Your task to perform on an android device: Go to CNN.com Image 0: 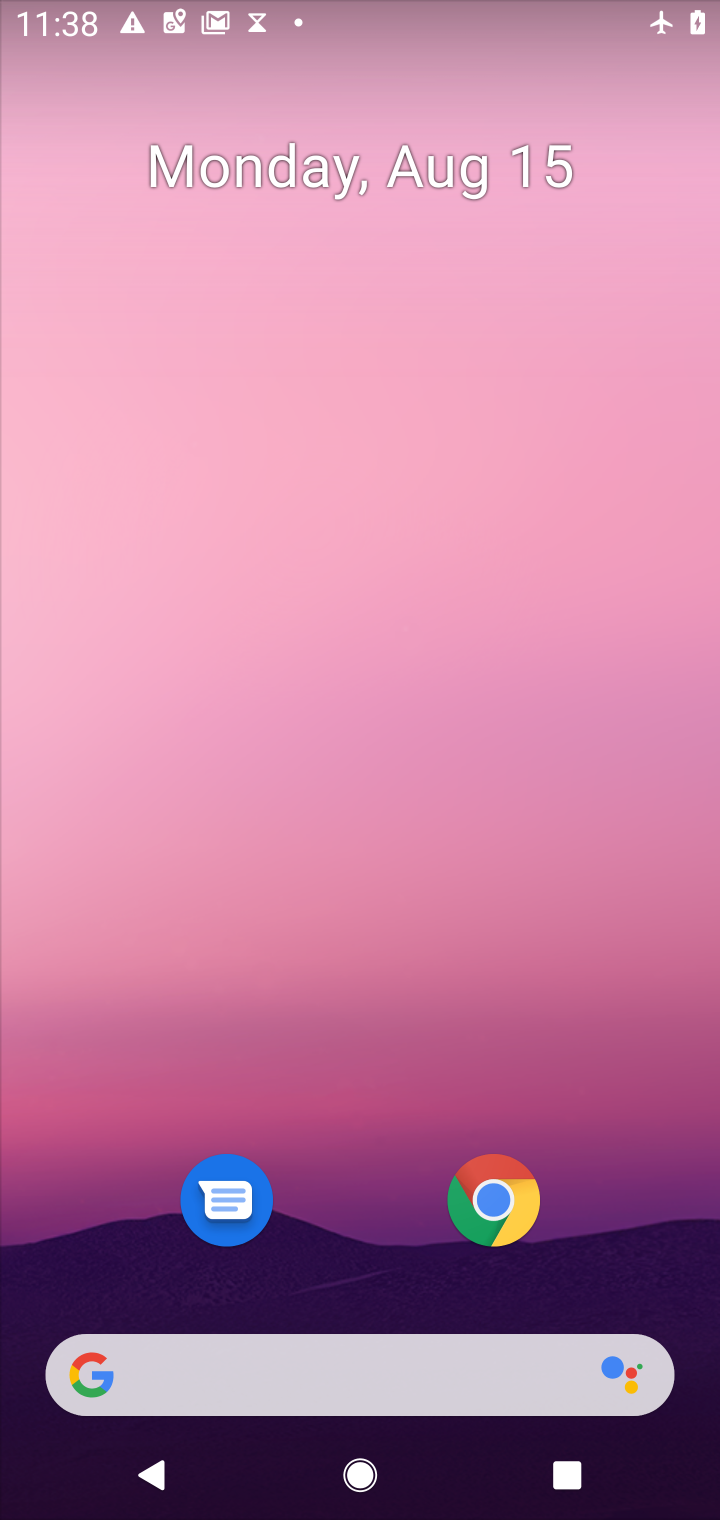
Step 0: click (495, 1198)
Your task to perform on an android device: Go to CNN.com Image 1: 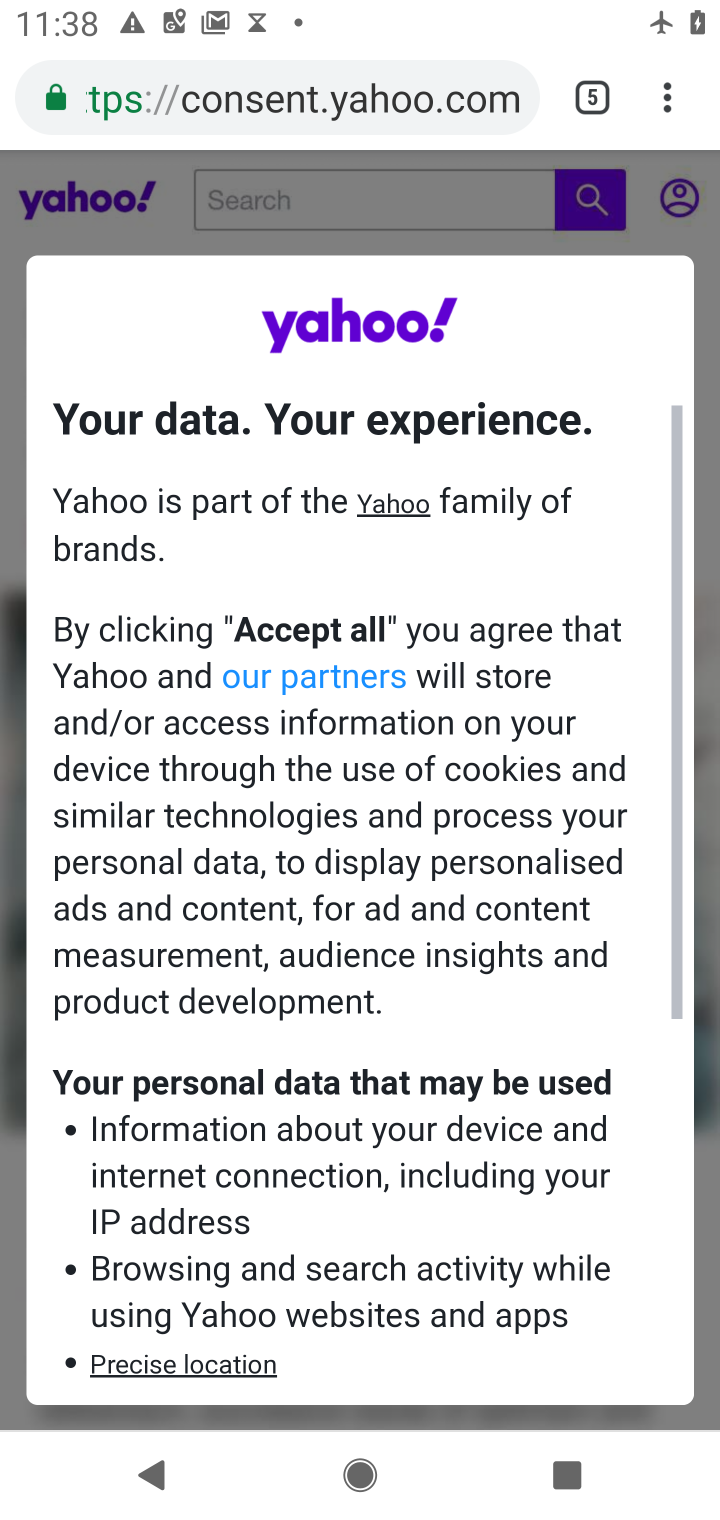
Step 1: click (601, 97)
Your task to perform on an android device: Go to CNN.com Image 2: 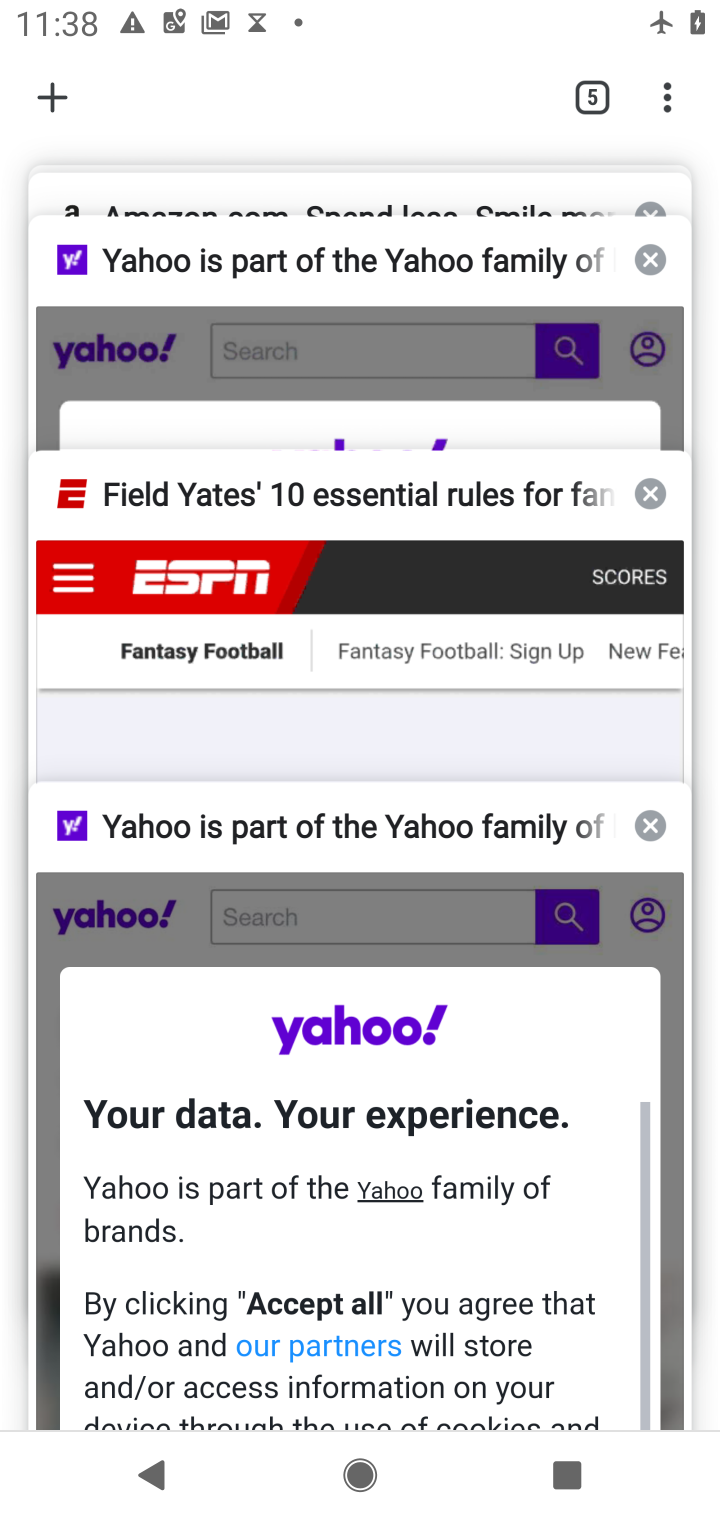
Step 2: click (65, 78)
Your task to perform on an android device: Go to CNN.com Image 3: 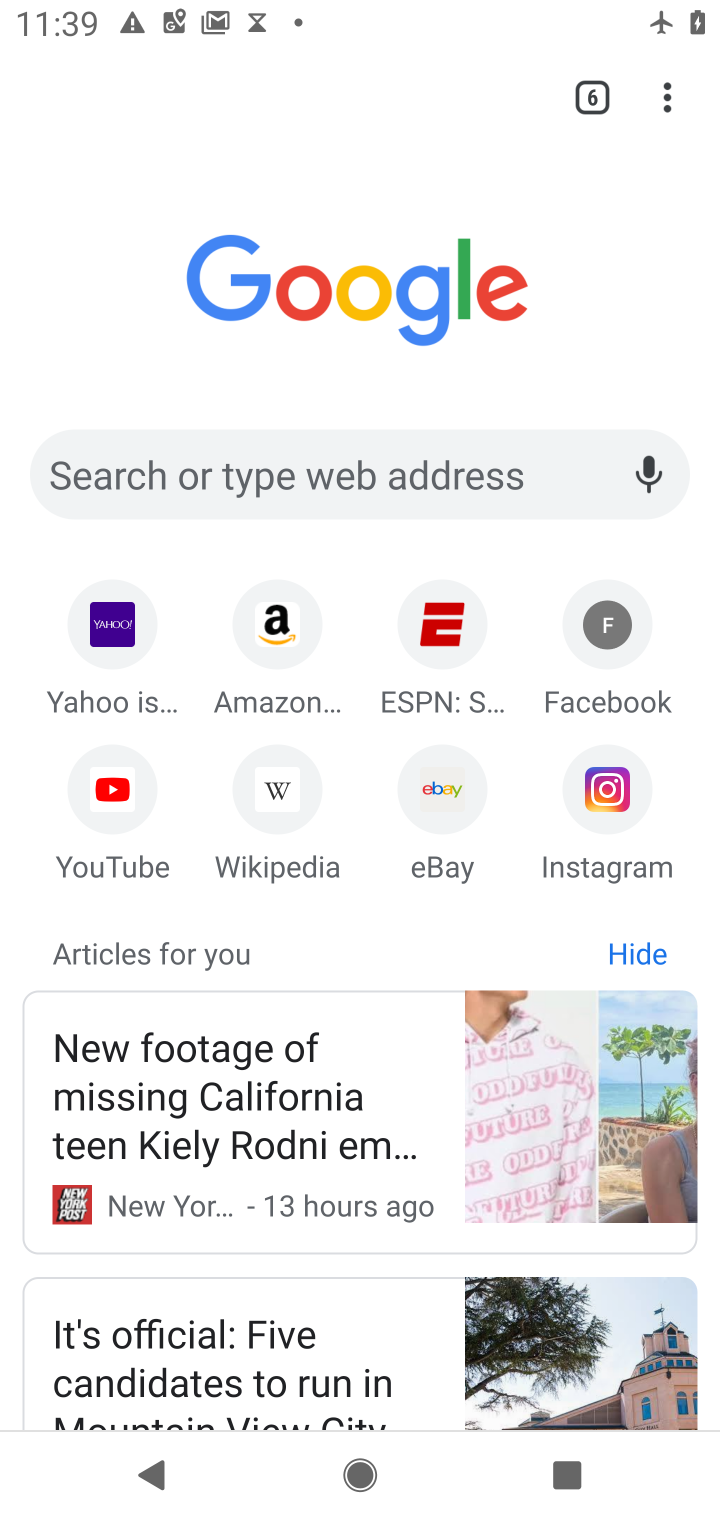
Step 3: click (208, 478)
Your task to perform on an android device: Go to CNN.com Image 4: 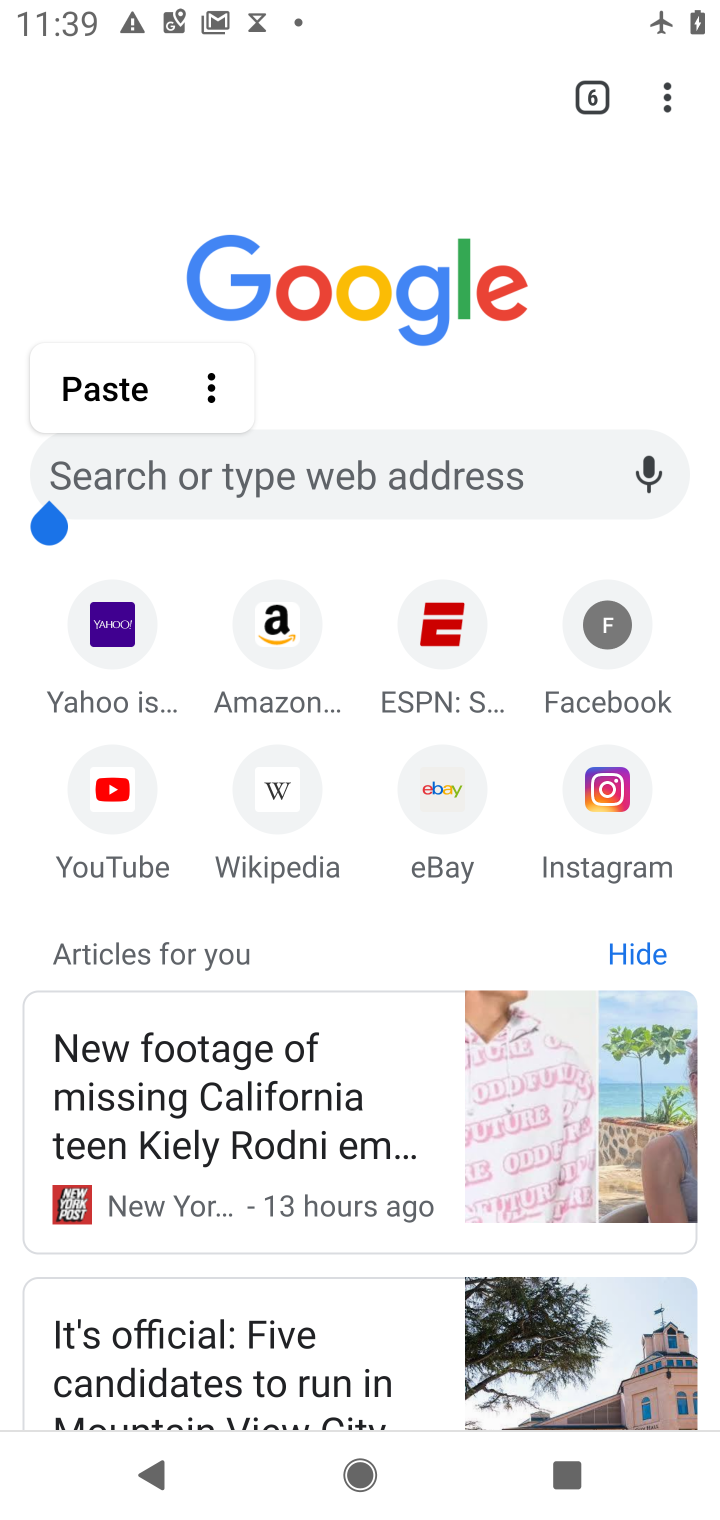
Step 4: type "CNN.com"
Your task to perform on an android device: Go to CNN.com Image 5: 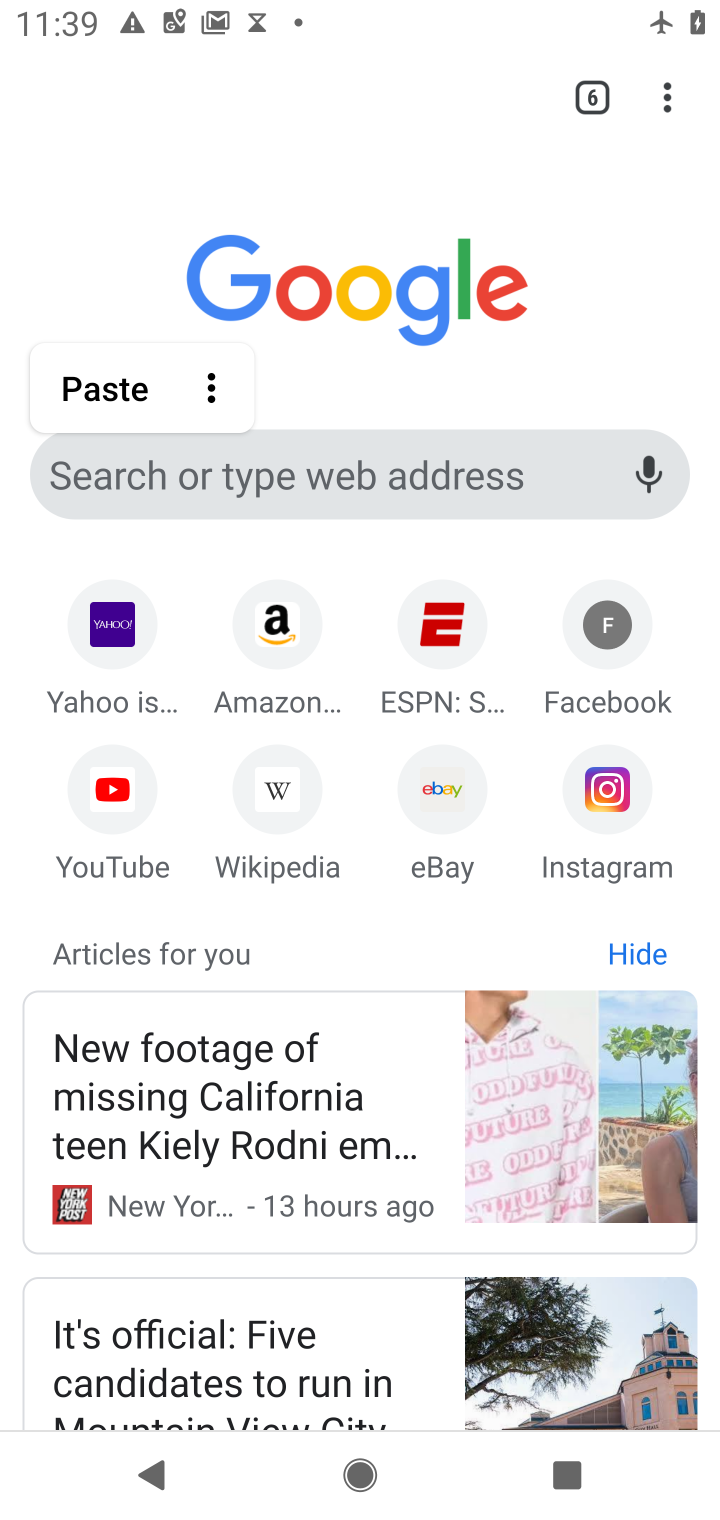
Step 5: click (291, 478)
Your task to perform on an android device: Go to CNN.com Image 6: 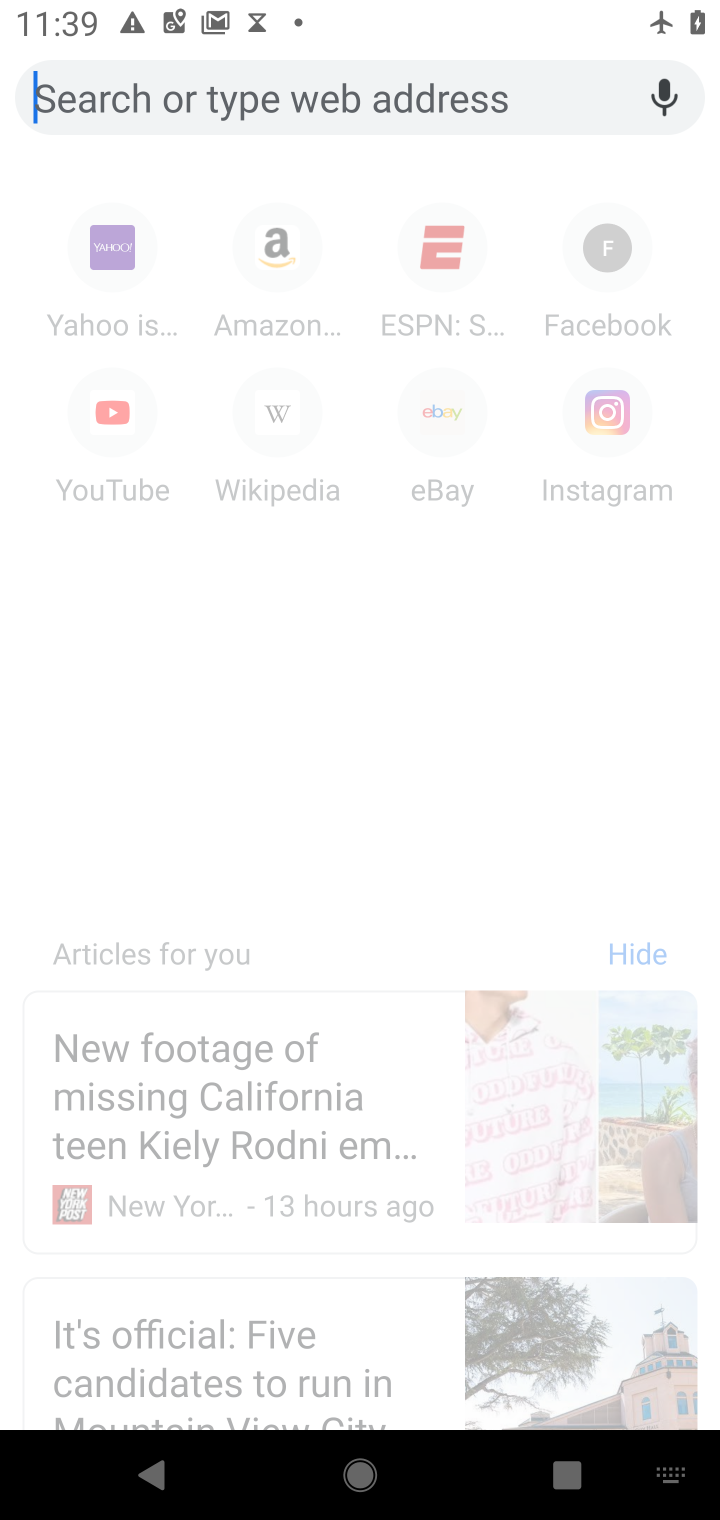
Step 6: type "CNN.com"
Your task to perform on an android device: Go to CNN.com Image 7: 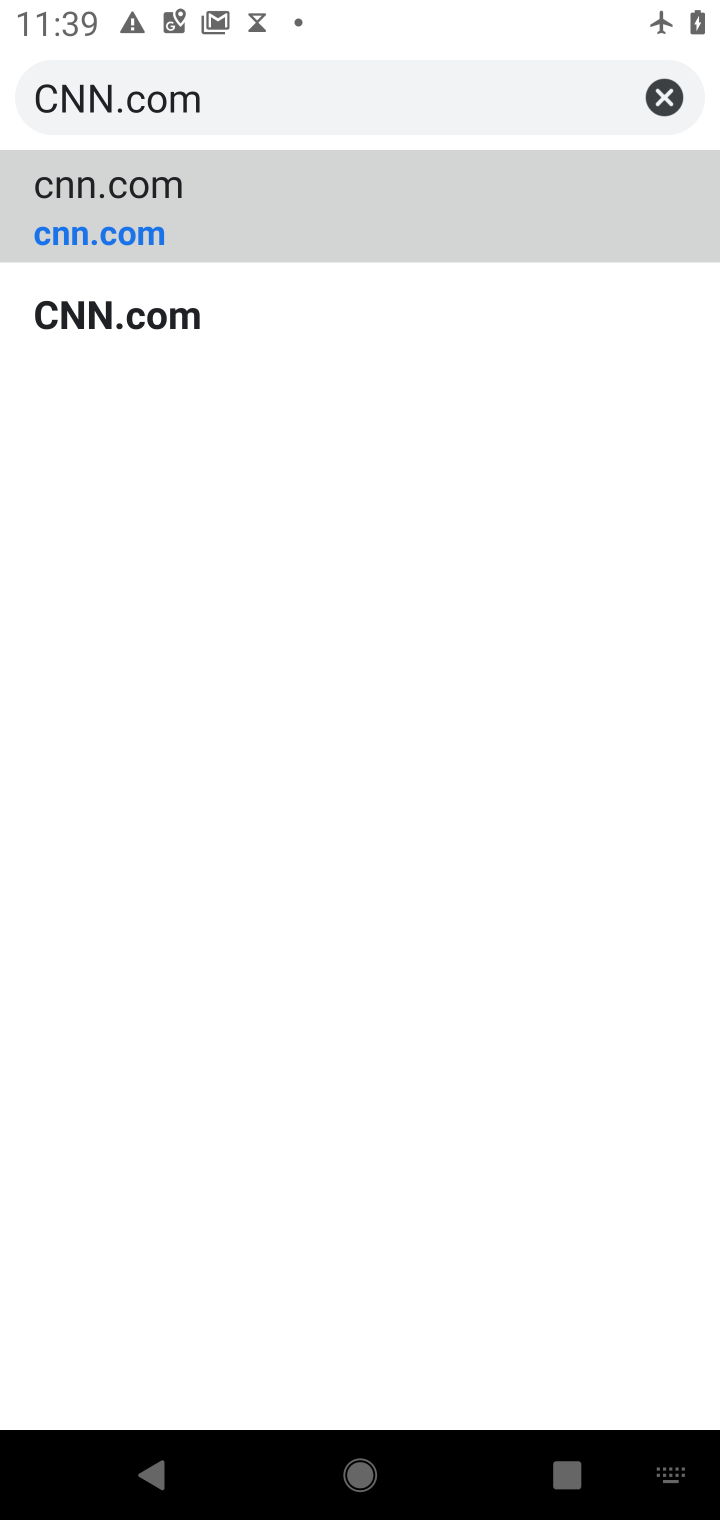
Step 7: type ""
Your task to perform on an android device: Go to CNN.com Image 8: 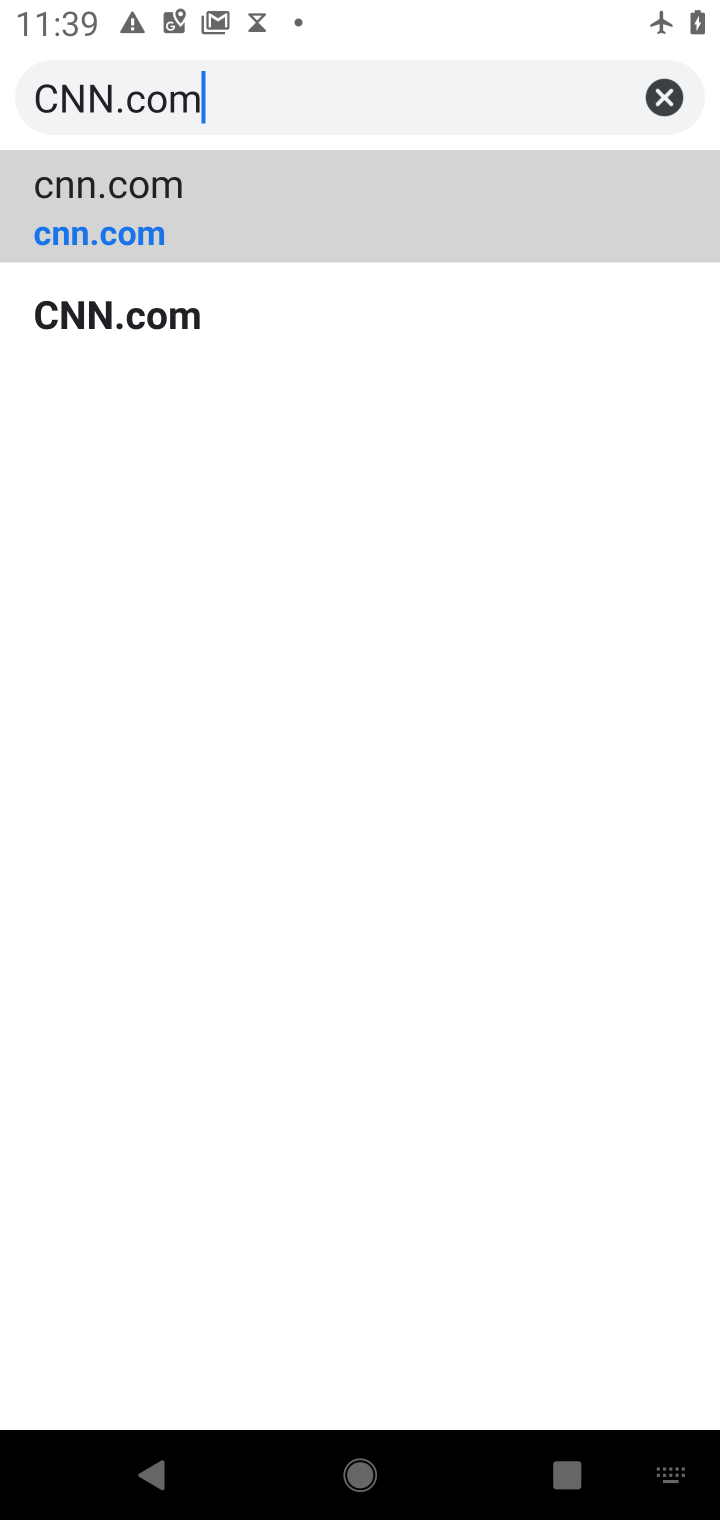
Step 8: click (187, 193)
Your task to perform on an android device: Go to CNN.com Image 9: 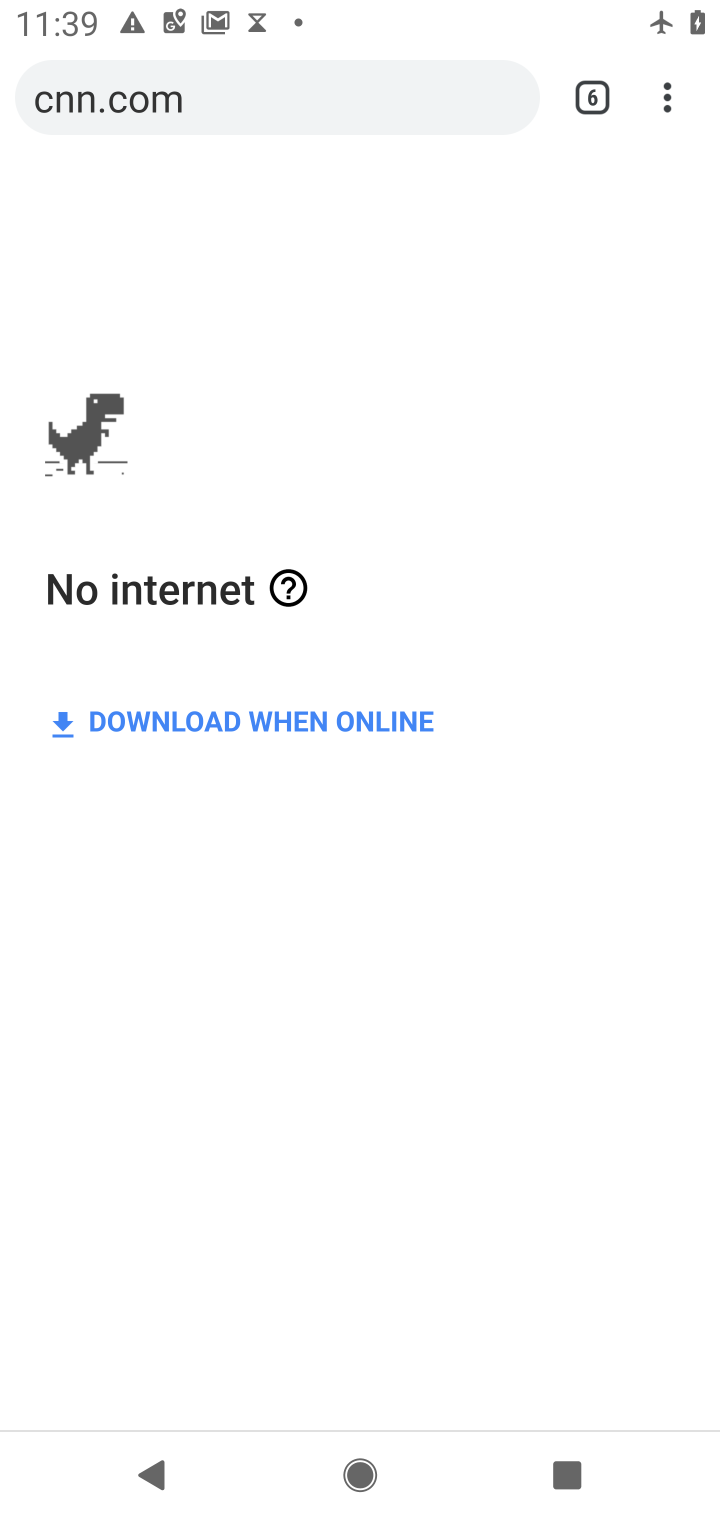
Step 9: task complete